Your task to perform on an android device: see tabs open on other devices in the chrome app Image 0: 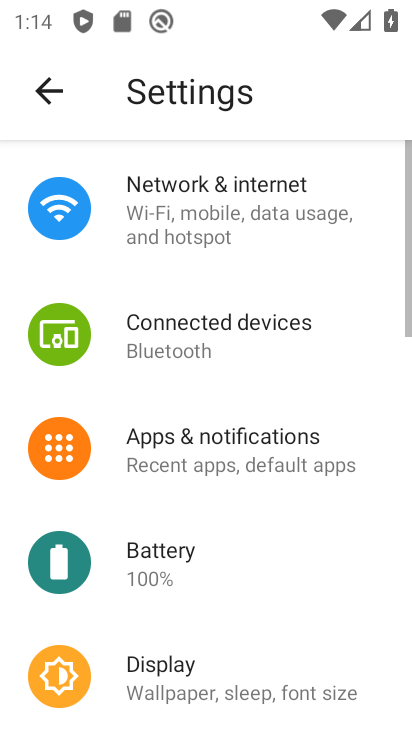
Step 0: press home button
Your task to perform on an android device: see tabs open on other devices in the chrome app Image 1: 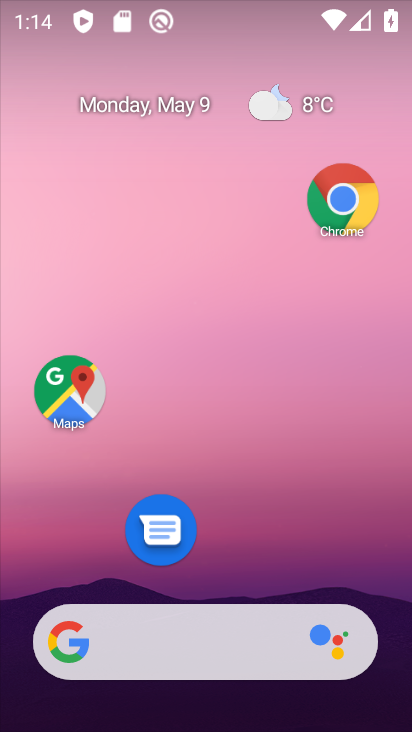
Step 1: click (338, 203)
Your task to perform on an android device: see tabs open on other devices in the chrome app Image 2: 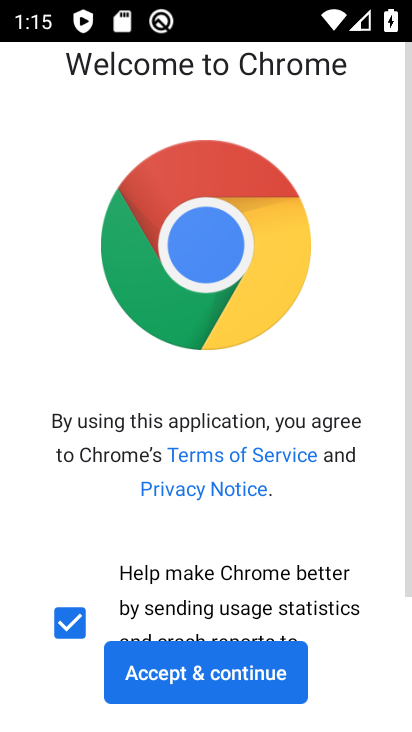
Step 2: click (219, 644)
Your task to perform on an android device: see tabs open on other devices in the chrome app Image 3: 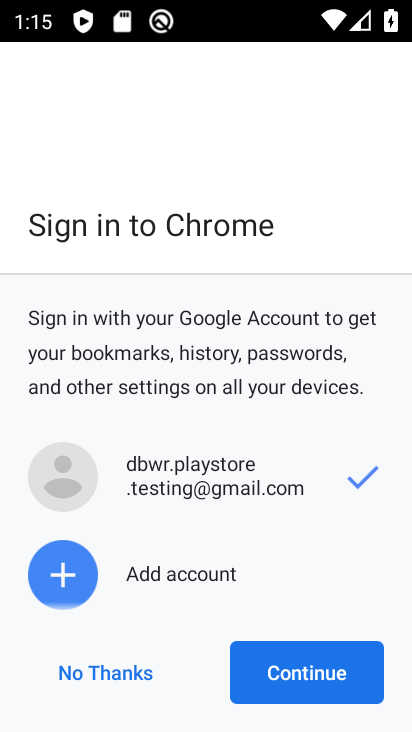
Step 3: click (316, 671)
Your task to perform on an android device: see tabs open on other devices in the chrome app Image 4: 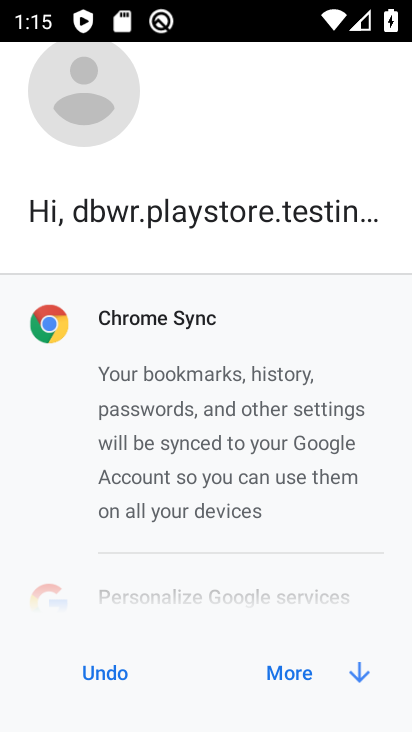
Step 4: click (280, 681)
Your task to perform on an android device: see tabs open on other devices in the chrome app Image 5: 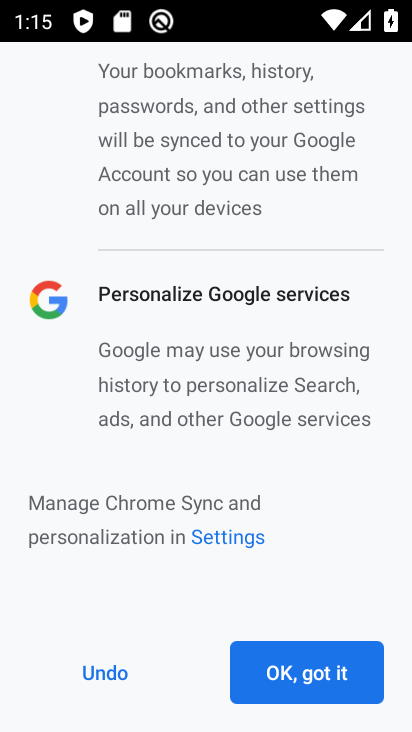
Step 5: click (280, 681)
Your task to perform on an android device: see tabs open on other devices in the chrome app Image 6: 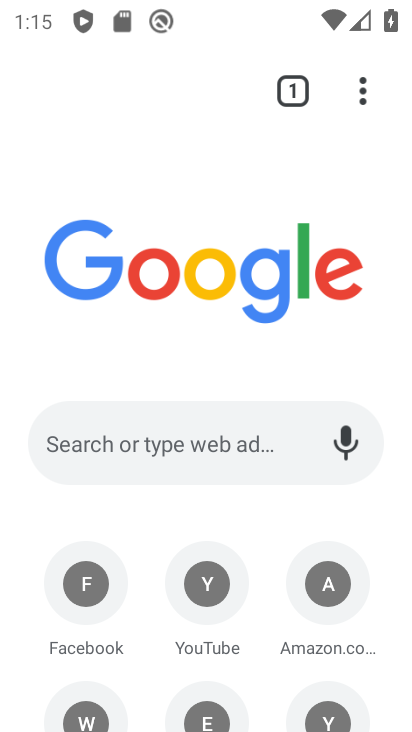
Step 6: click (291, 95)
Your task to perform on an android device: see tabs open on other devices in the chrome app Image 7: 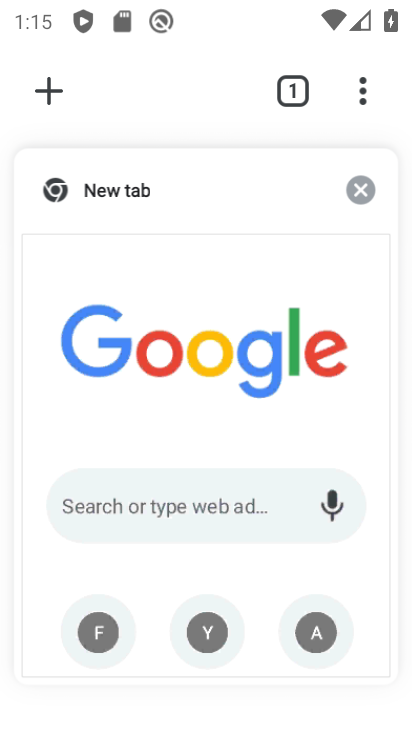
Step 7: task complete